Your task to perform on an android device: What's the weather today? Image 0: 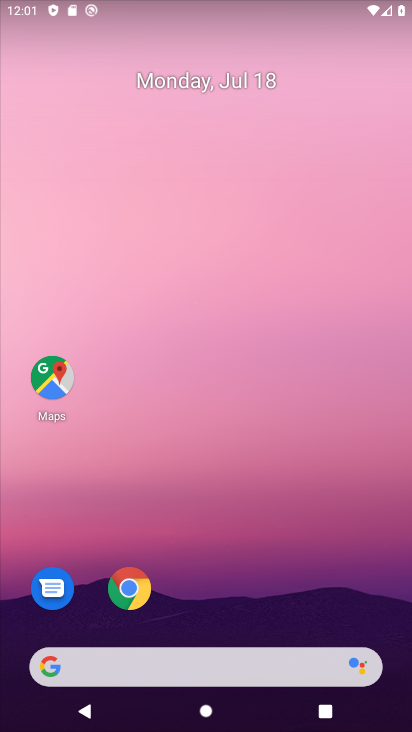
Step 0: drag from (239, 627) to (239, 76)
Your task to perform on an android device: What's the weather today? Image 1: 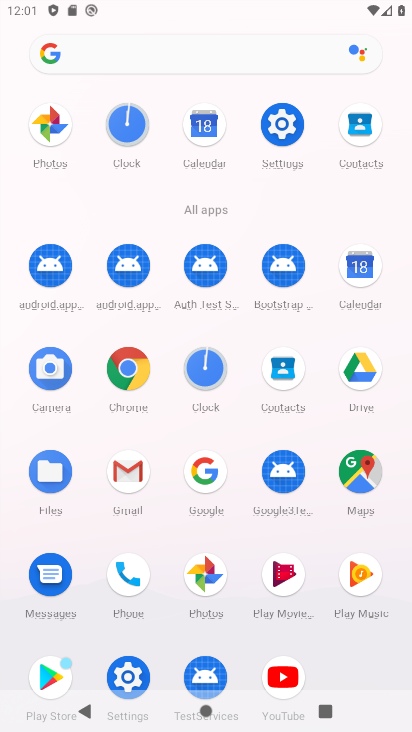
Step 1: click (209, 477)
Your task to perform on an android device: What's the weather today? Image 2: 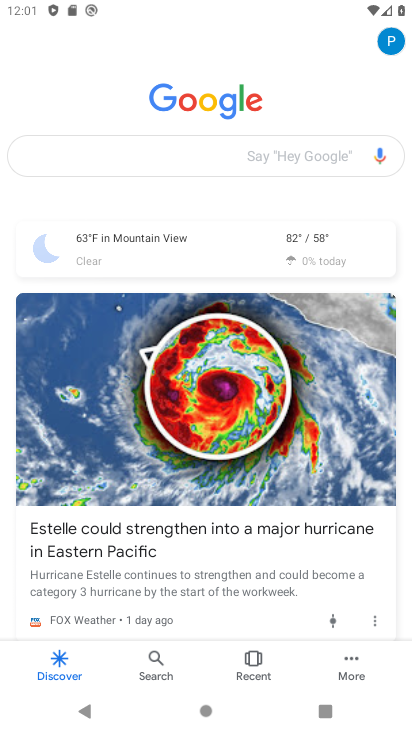
Step 2: click (119, 240)
Your task to perform on an android device: What's the weather today? Image 3: 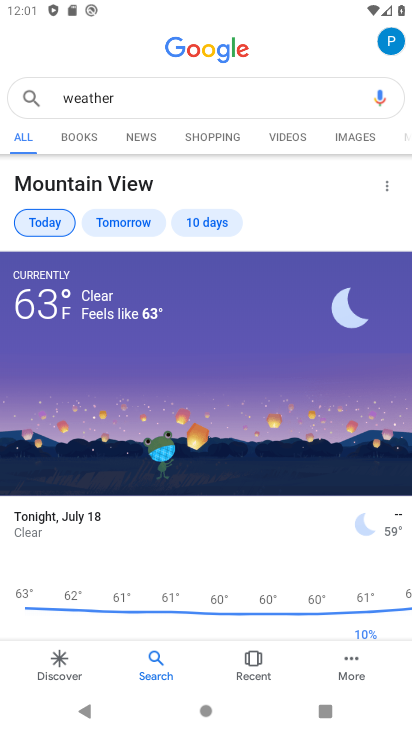
Step 3: click (51, 217)
Your task to perform on an android device: What's the weather today? Image 4: 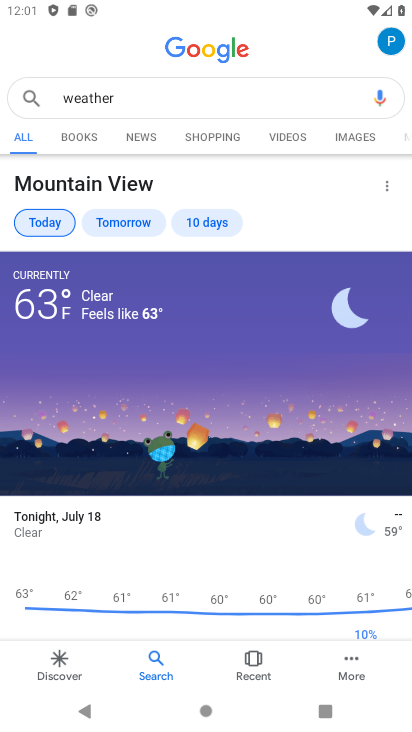
Step 4: click (55, 224)
Your task to perform on an android device: What's the weather today? Image 5: 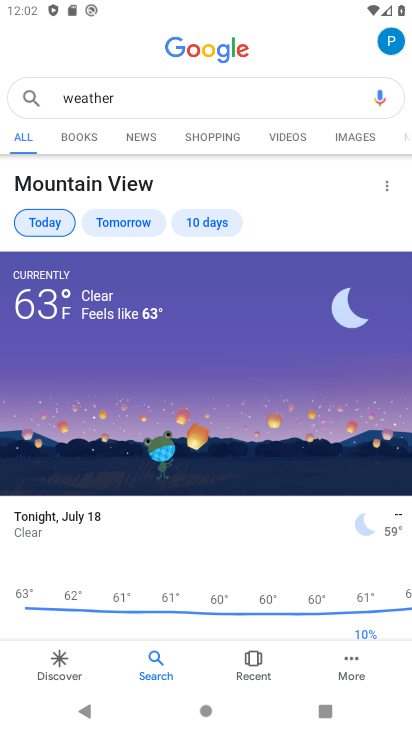
Step 5: click (50, 221)
Your task to perform on an android device: What's the weather today? Image 6: 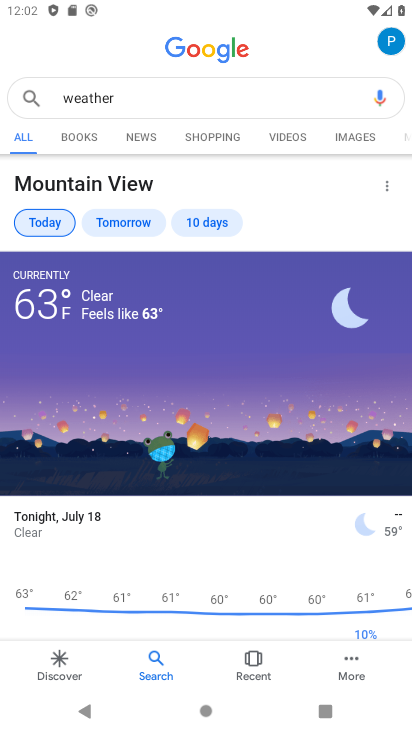
Step 6: click (40, 213)
Your task to perform on an android device: What's the weather today? Image 7: 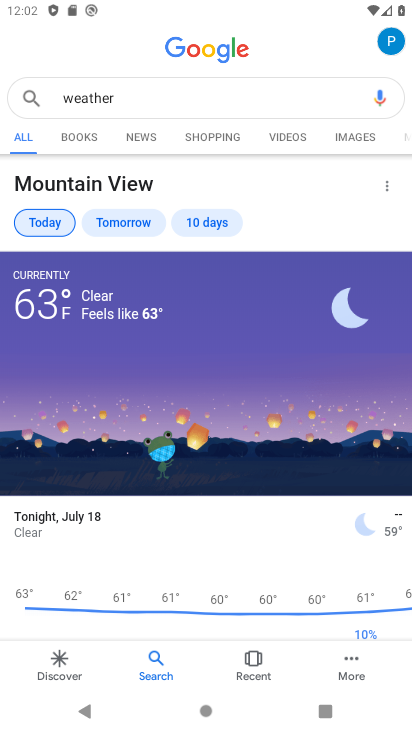
Step 7: task complete